Your task to perform on an android device: turn pop-ups on in chrome Image 0: 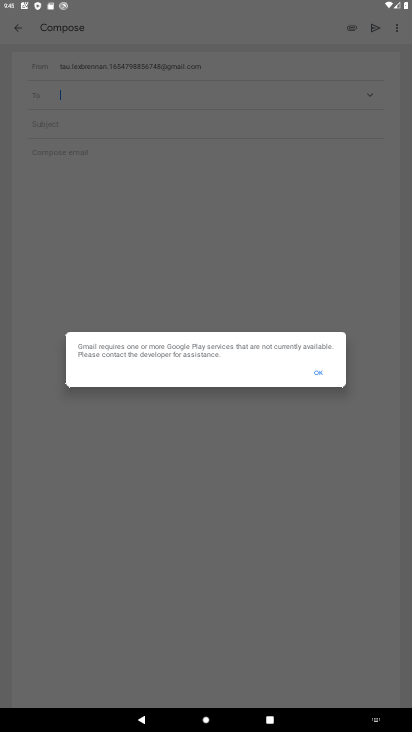
Step 0: click (338, 371)
Your task to perform on an android device: turn pop-ups on in chrome Image 1: 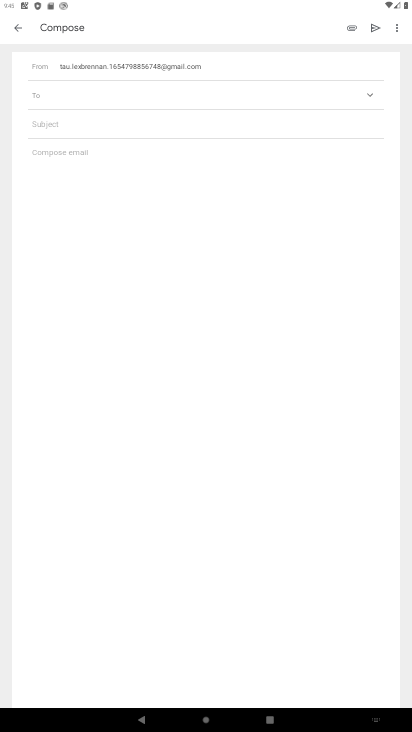
Step 1: press home button
Your task to perform on an android device: turn pop-ups on in chrome Image 2: 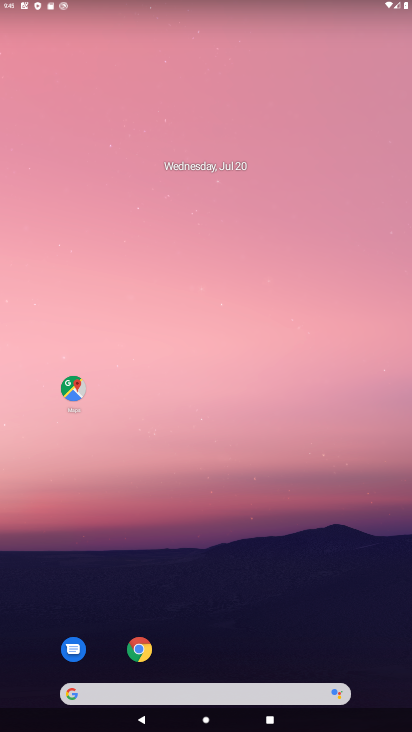
Step 2: drag from (279, 639) to (289, 385)
Your task to perform on an android device: turn pop-ups on in chrome Image 3: 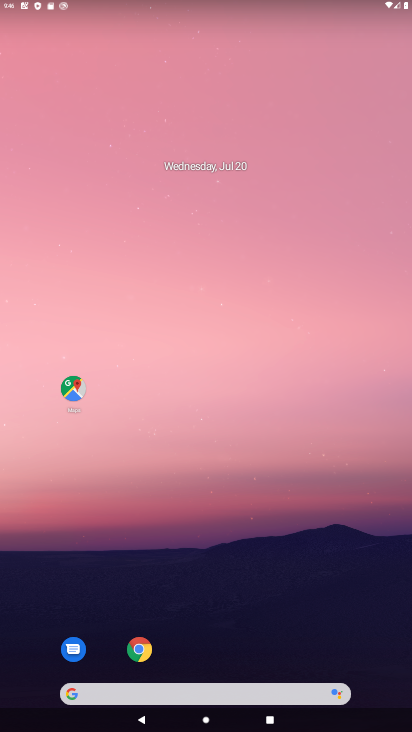
Step 3: click (147, 638)
Your task to perform on an android device: turn pop-ups on in chrome Image 4: 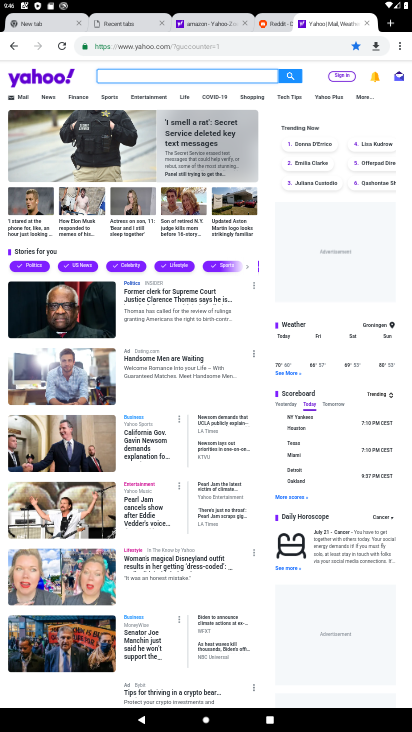
Step 4: click (406, 45)
Your task to perform on an android device: turn pop-ups on in chrome Image 5: 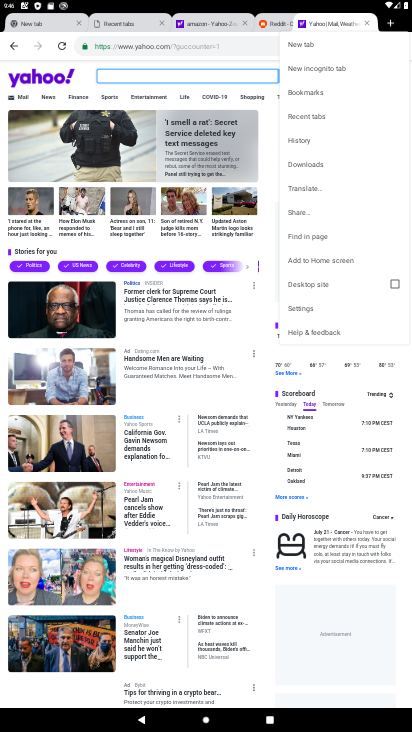
Step 5: click (332, 300)
Your task to perform on an android device: turn pop-ups on in chrome Image 6: 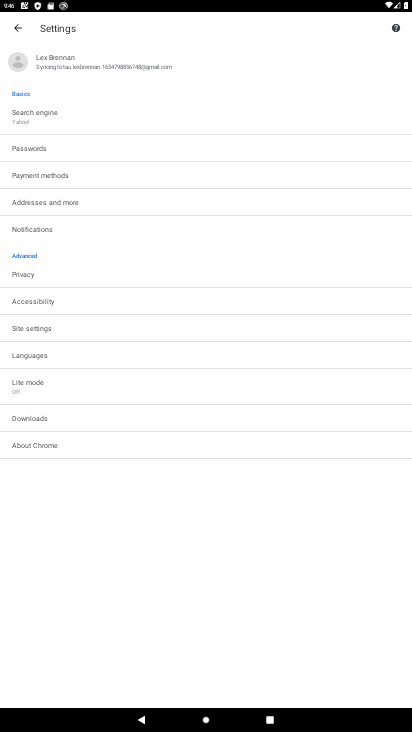
Step 6: task complete